Your task to perform on an android device: Open Youtube and go to the subscriptions tab Image 0: 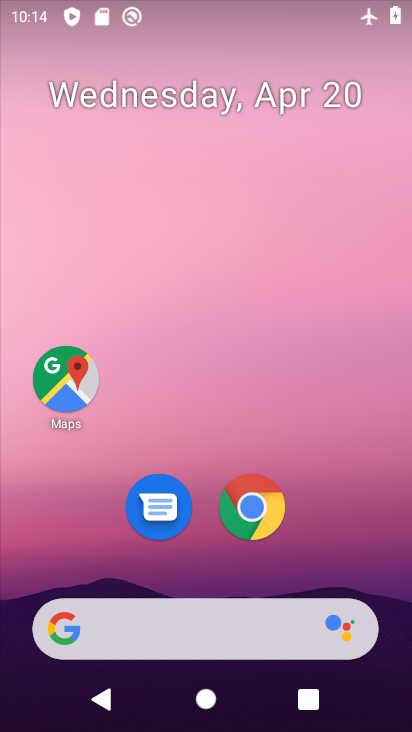
Step 0: drag from (196, 566) to (256, 54)
Your task to perform on an android device: Open Youtube and go to the subscriptions tab Image 1: 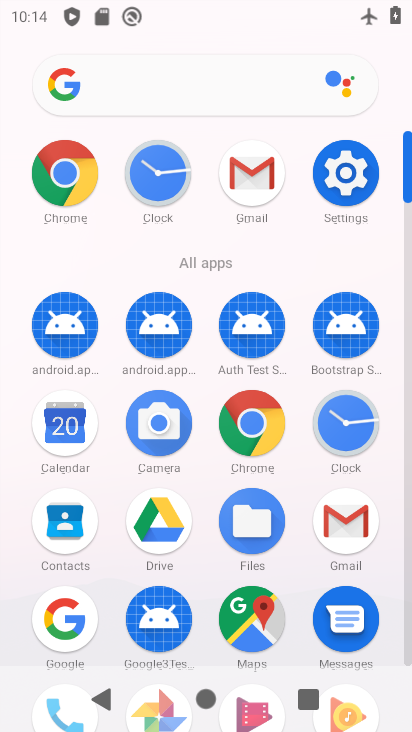
Step 1: drag from (209, 595) to (218, 280)
Your task to perform on an android device: Open Youtube and go to the subscriptions tab Image 2: 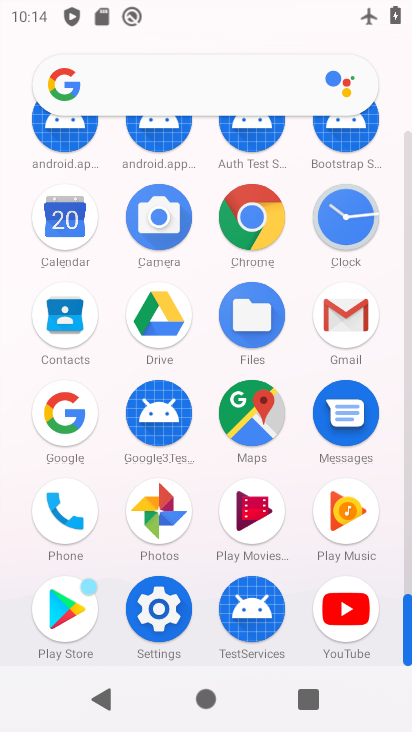
Step 2: click (350, 615)
Your task to perform on an android device: Open Youtube and go to the subscriptions tab Image 3: 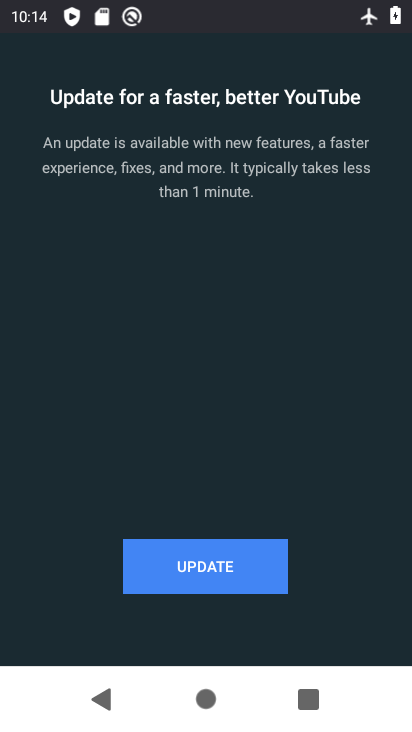
Step 3: click (236, 552)
Your task to perform on an android device: Open Youtube and go to the subscriptions tab Image 4: 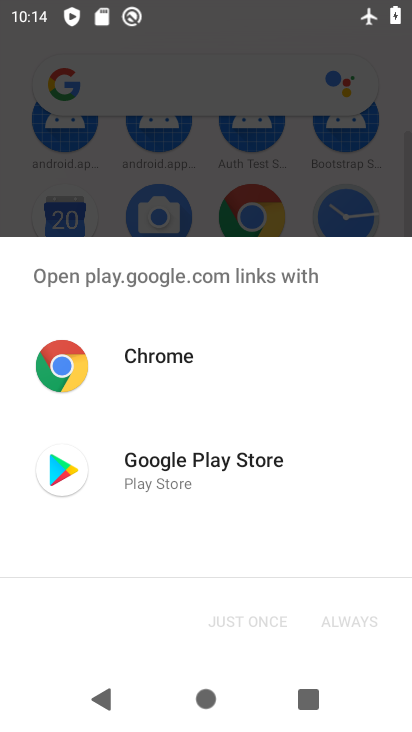
Step 4: click (218, 451)
Your task to perform on an android device: Open Youtube and go to the subscriptions tab Image 5: 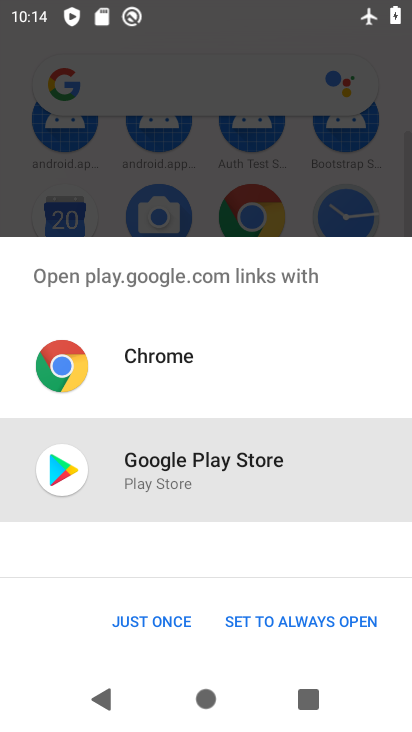
Step 5: click (157, 624)
Your task to perform on an android device: Open Youtube and go to the subscriptions tab Image 6: 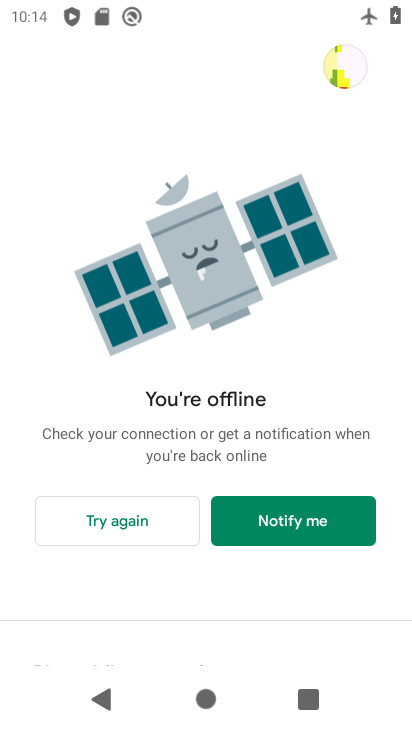
Step 6: click (132, 518)
Your task to perform on an android device: Open Youtube and go to the subscriptions tab Image 7: 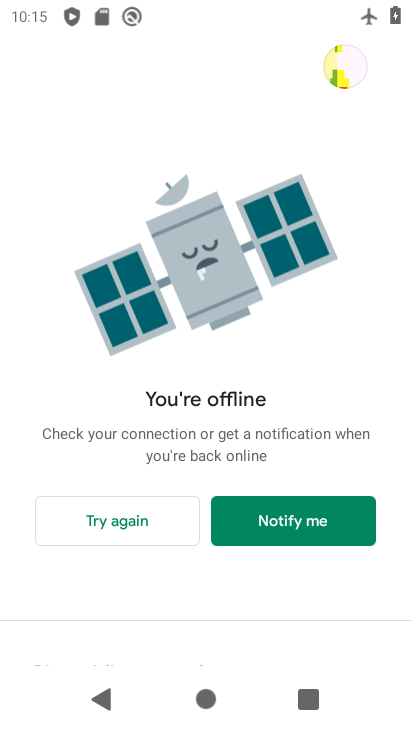
Step 7: task complete